Your task to perform on an android device: Search for beats solo 3 on target, select the first entry, add it to the cart, then select checkout. Image 0: 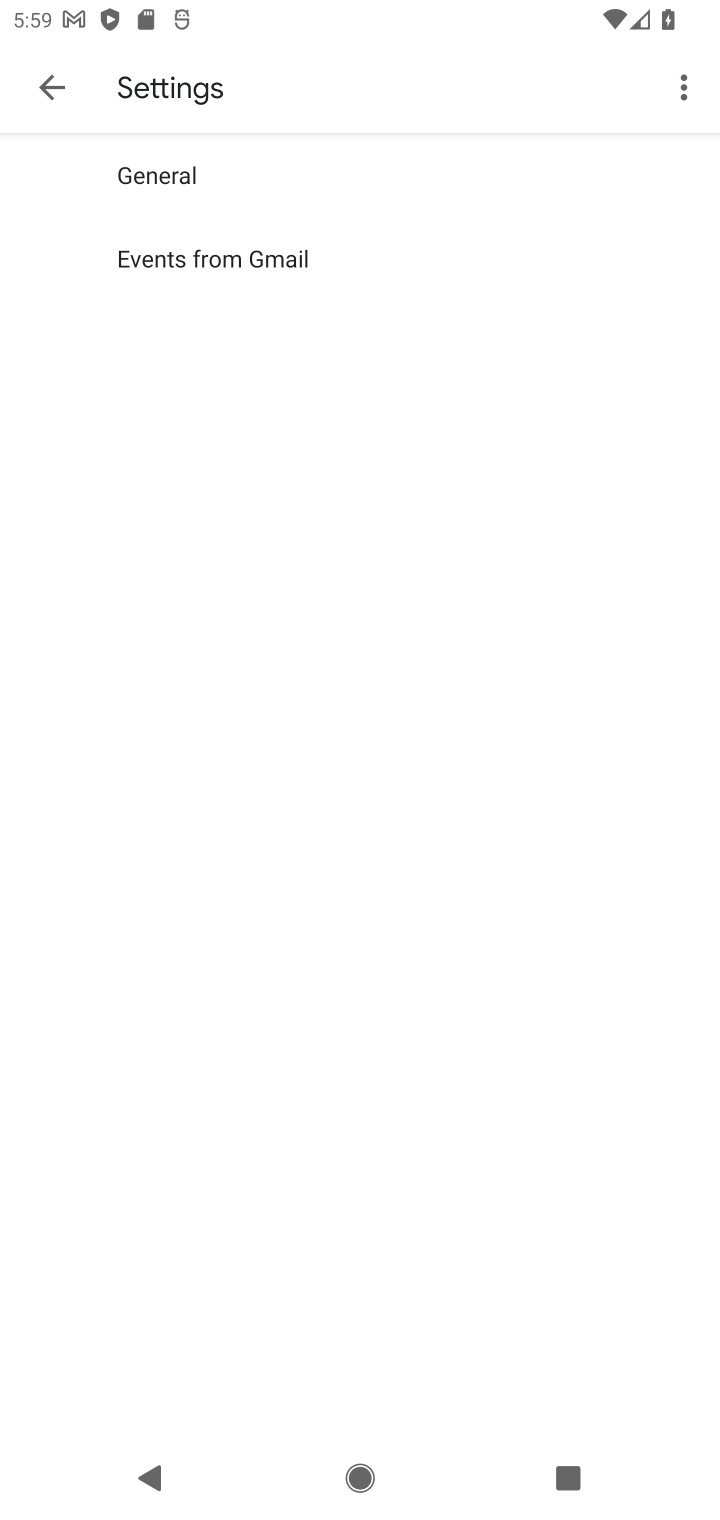
Step 0: press home button
Your task to perform on an android device: Search for beats solo 3 on target, select the first entry, add it to the cart, then select checkout. Image 1: 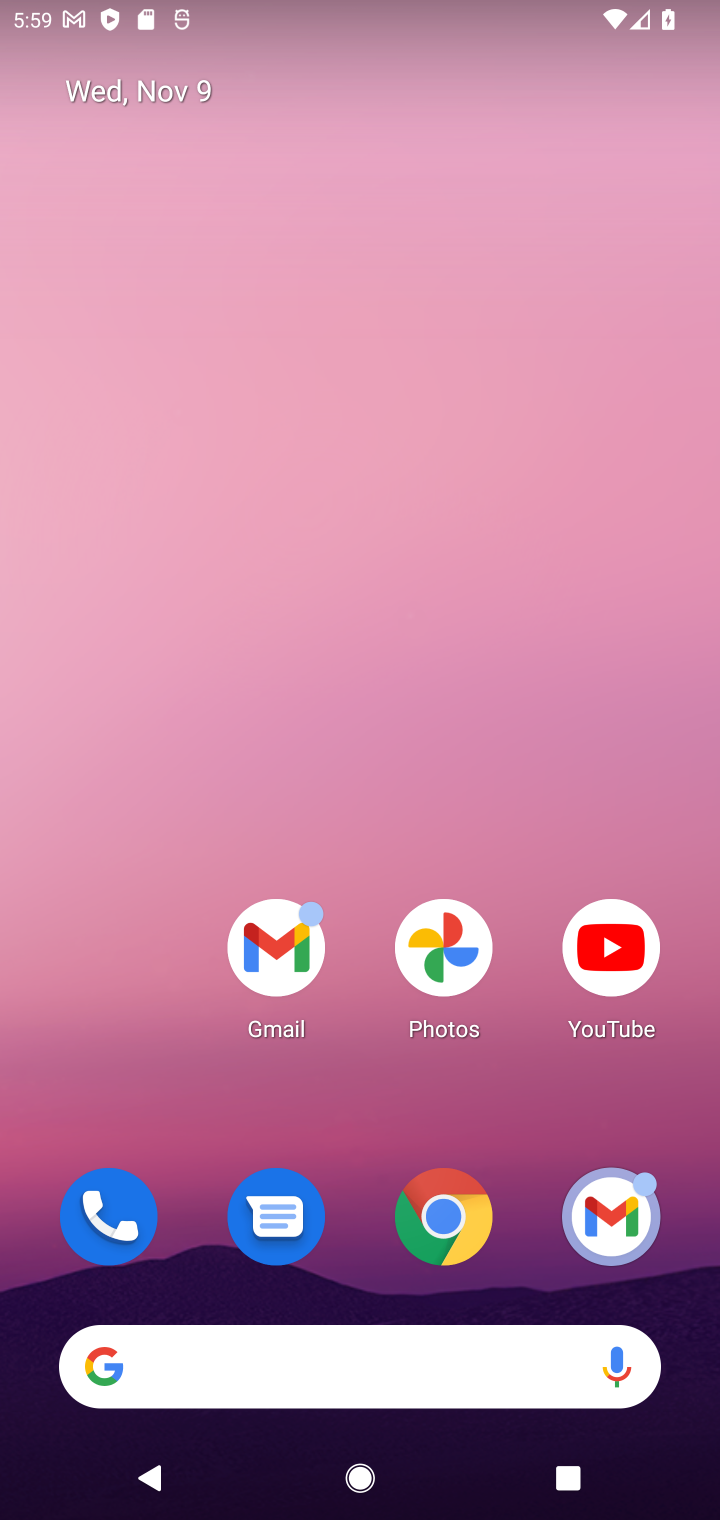
Step 1: drag from (362, 1171) to (371, 232)
Your task to perform on an android device: Search for beats solo 3 on target, select the first entry, add it to the cart, then select checkout. Image 2: 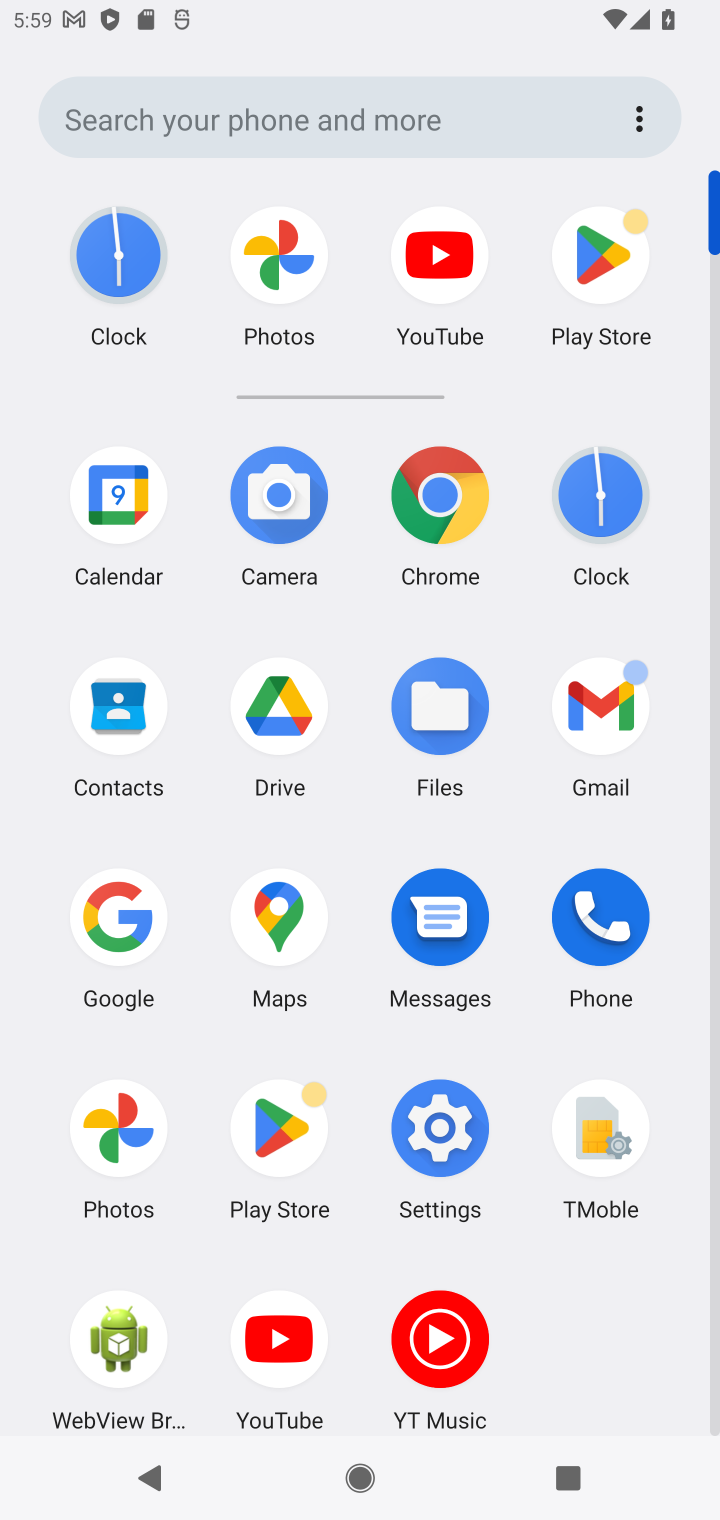
Step 2: click (286, 1342)
Your task to perform on an android device: Search for beats solo 3 on target, select the first entry, add it to the cart, then select checkout. Image 3: 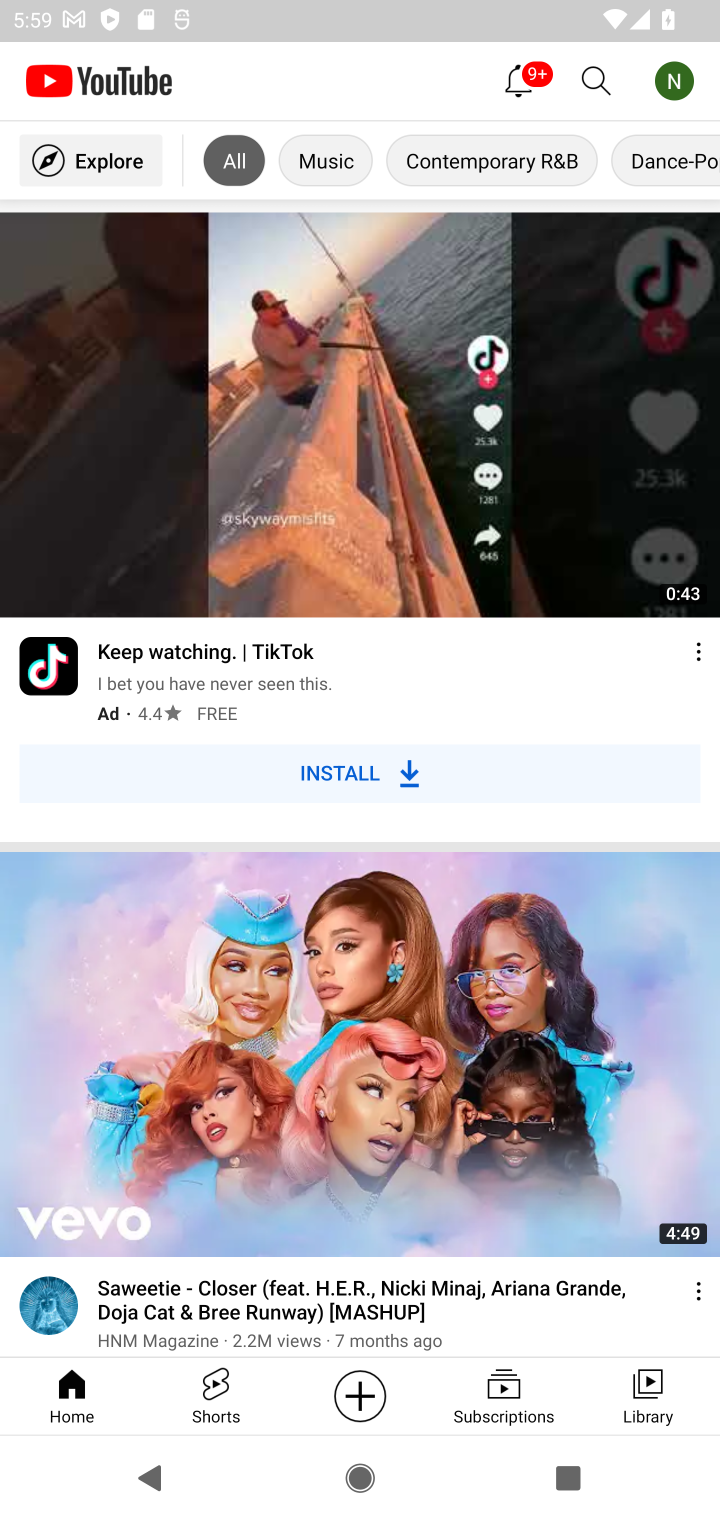
Step 3: press home button
Your task to perform on an android device: Search for beats solo 3 on target, select the first entry, add it to the cart, then select checkout. Image 4: 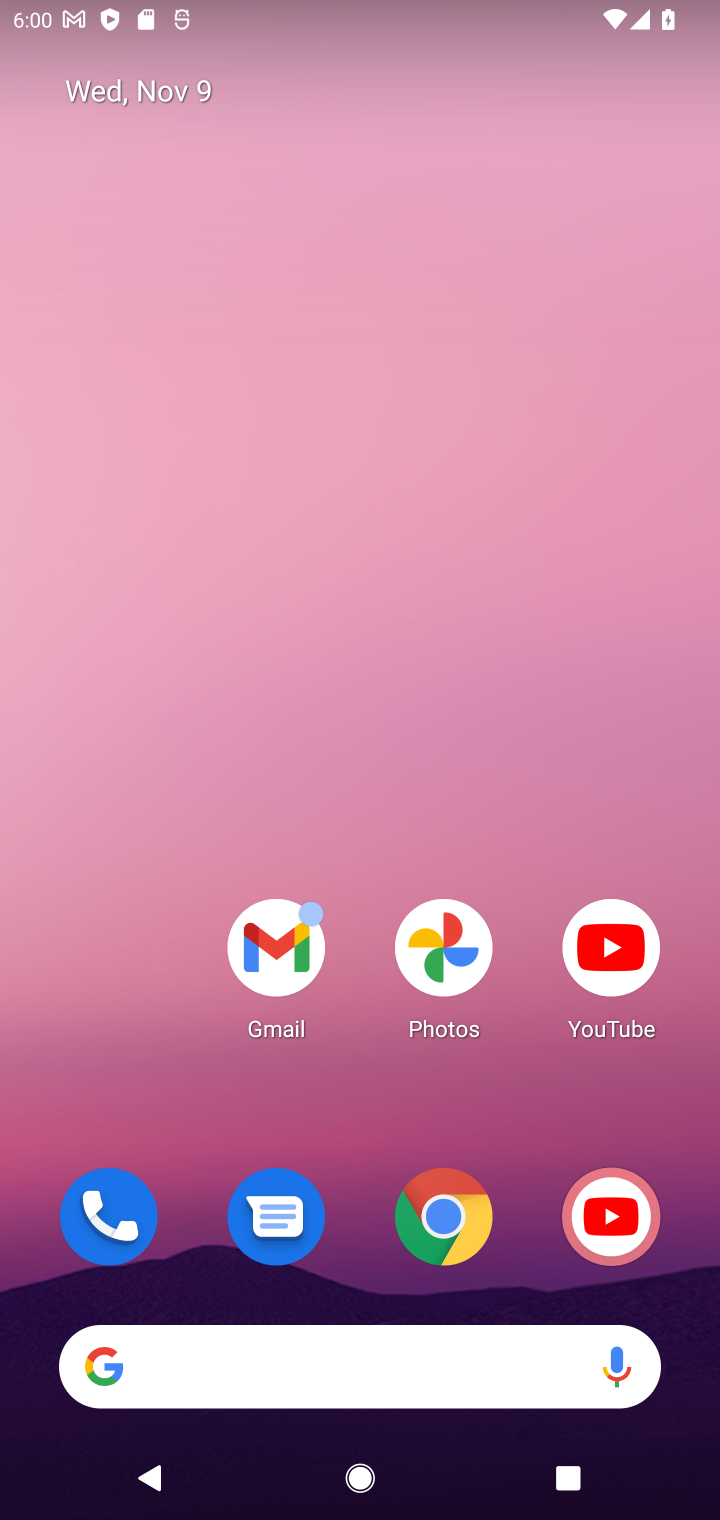
Step 4: drag from (379, 951) to (343, 345)
Your task to perform on an android device: Search for beats solo 3 on target, select the first entry, add it to the cart, then select checkout. Image 5: 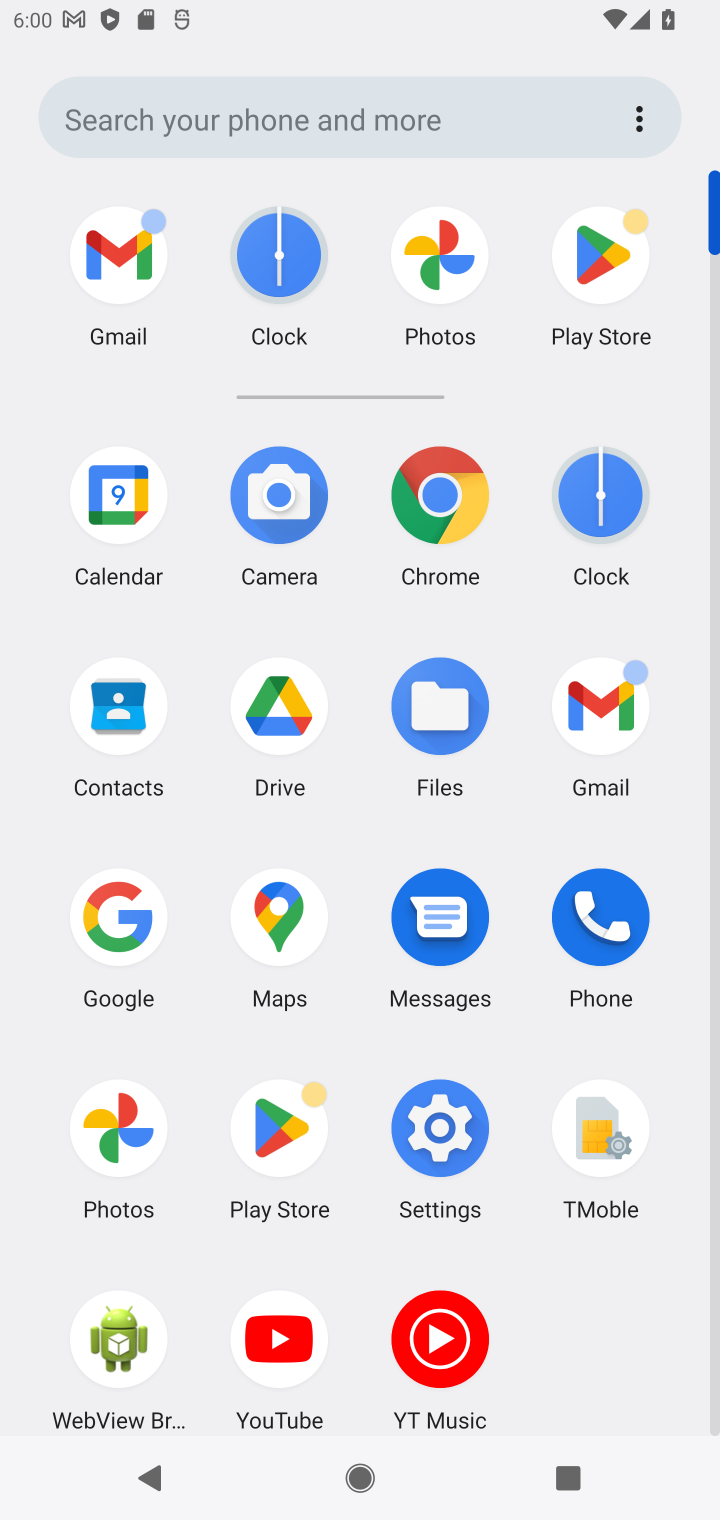
Step 5: click (444, 501)
Your task to perform on an android device: Search for beats solo 3 on target, select the first entry, add it to the cart, then select checkout. Image 6: 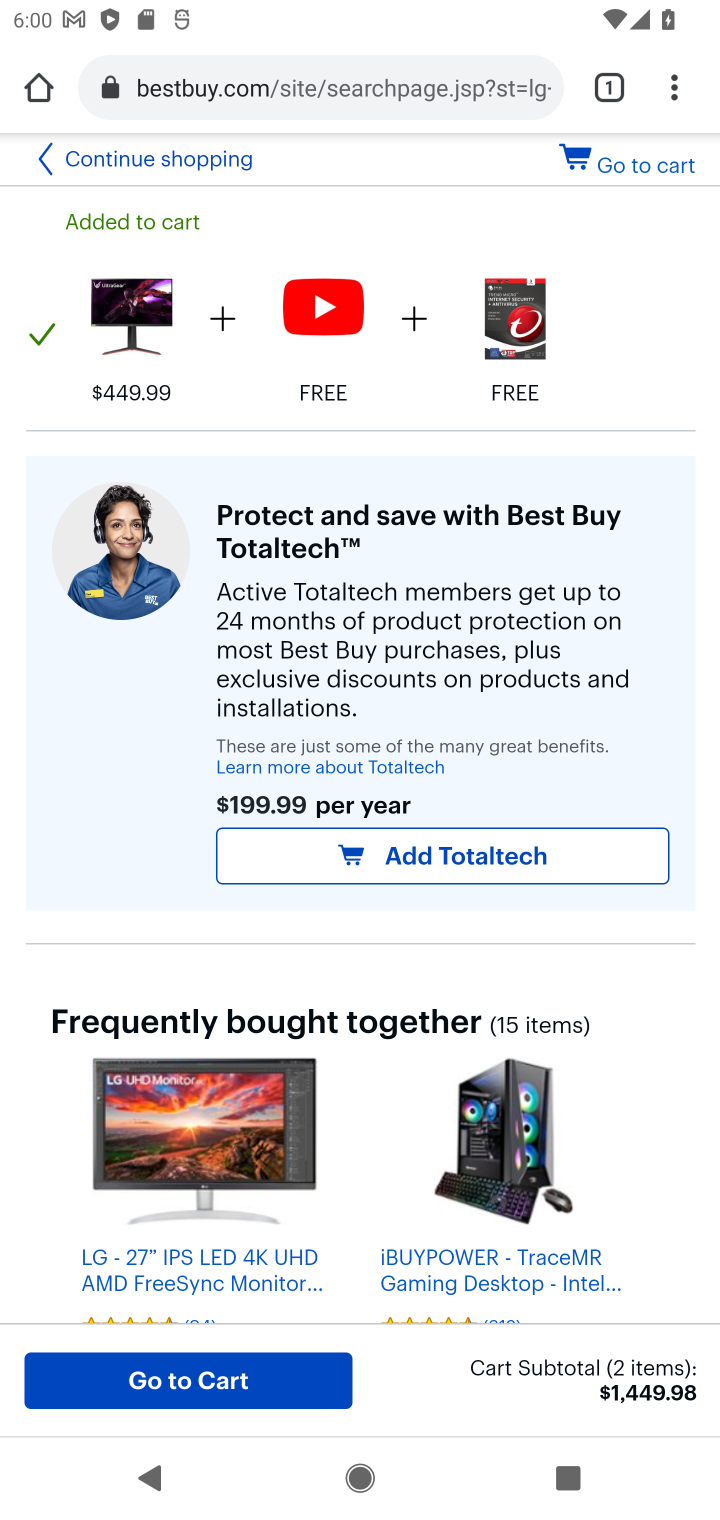
Step 6: click (410, 77)
Your task to perform on an android device: Search for beats solo 3 on target, select the first entry, add it to the cart, then select checkout. Image 7: 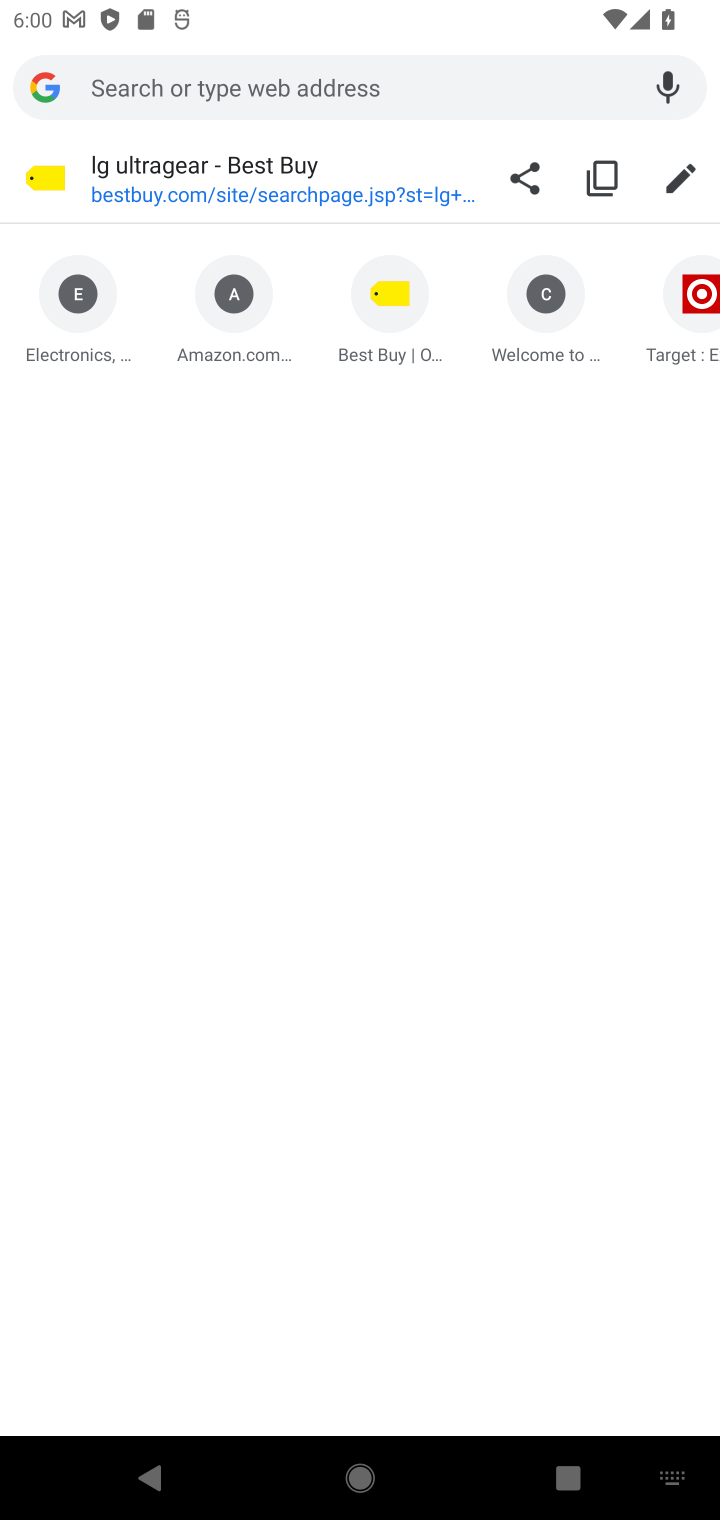
Step 7: type "target.com"
Your task to perform on an android device: Search for beats solo 3 on target, select the first entry, add it to the cart, then select checkout. Image 8: 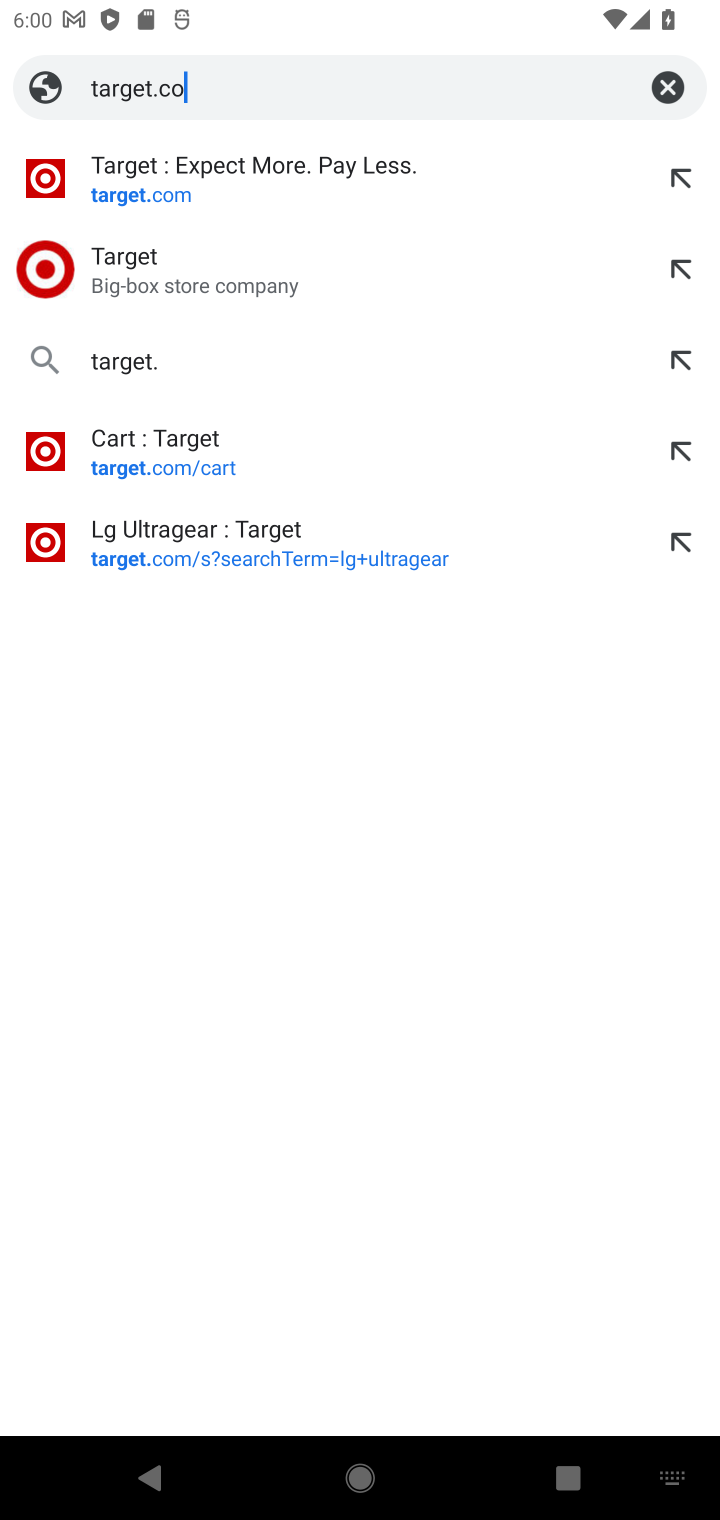
Step 8: press enter
Your task to perform on an android device: Search for beats solo 3 on target, select the first entry, add it to the cart, then select checkout. Image 9: 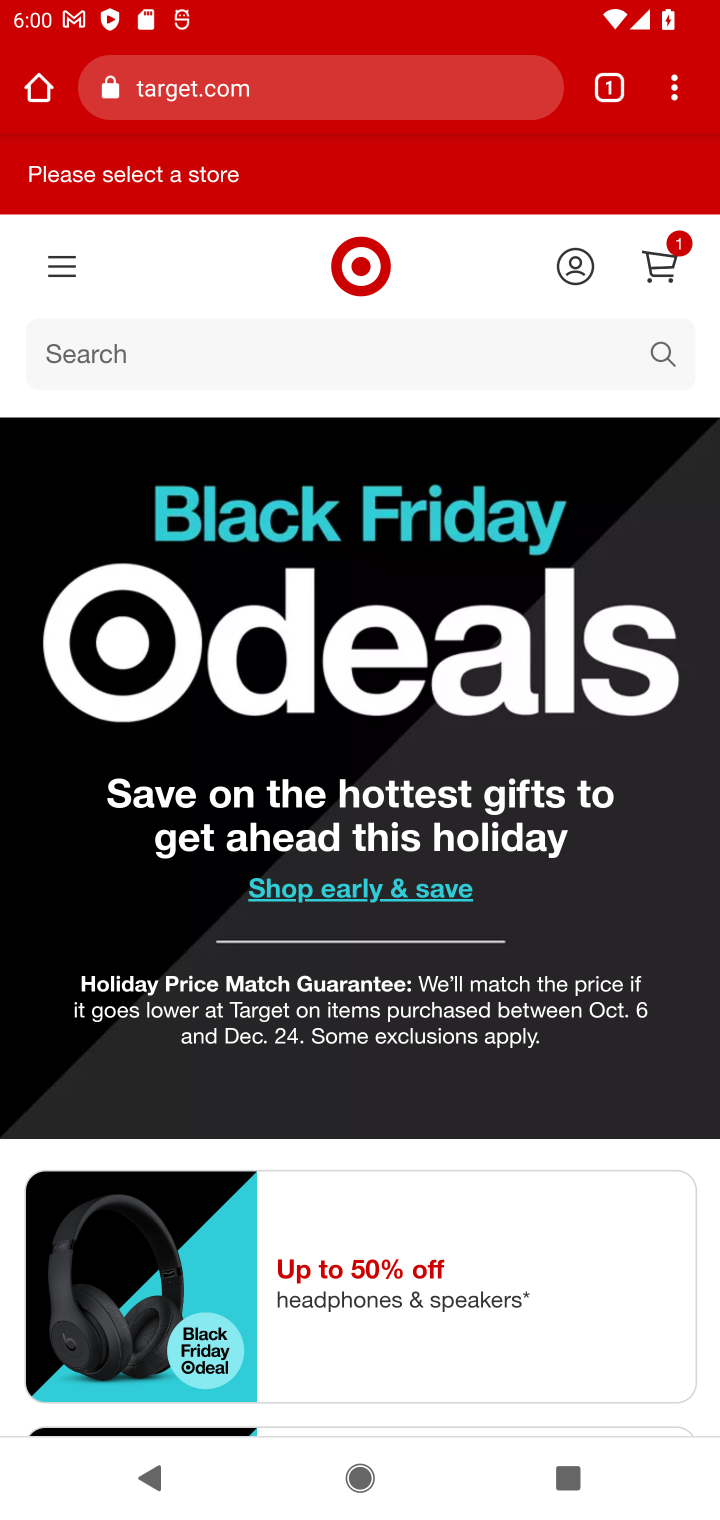
Step 9: click (362, 352)
Your task to perform on an android device: Search for beats solo 3 on target, select the first entry, add it to the cart, then select checkout. Image 10: 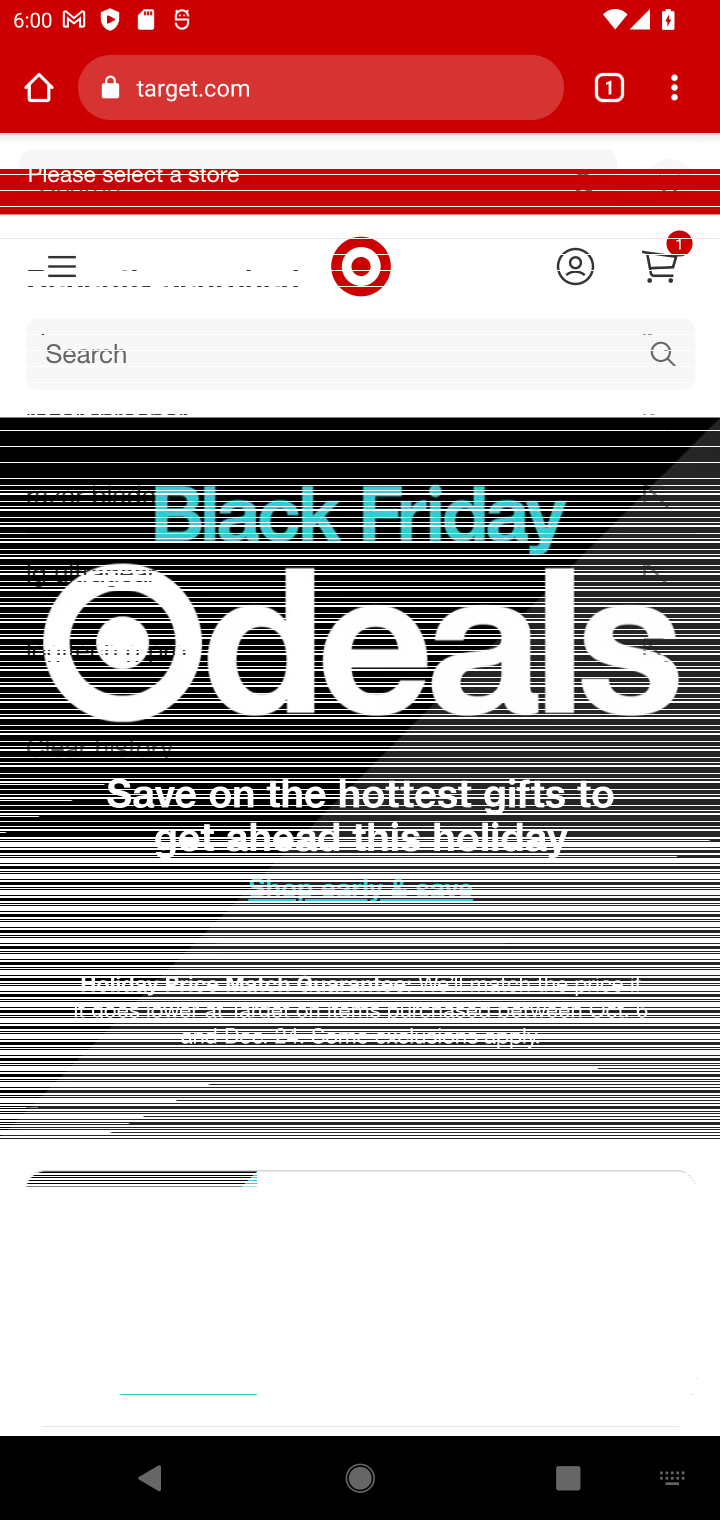
Step 10: type "beats solo 3"
Your task to perform on an android device: Search for beats solo 3 on target, select the first entry, add it to the cart, then select checkout. Image 11: 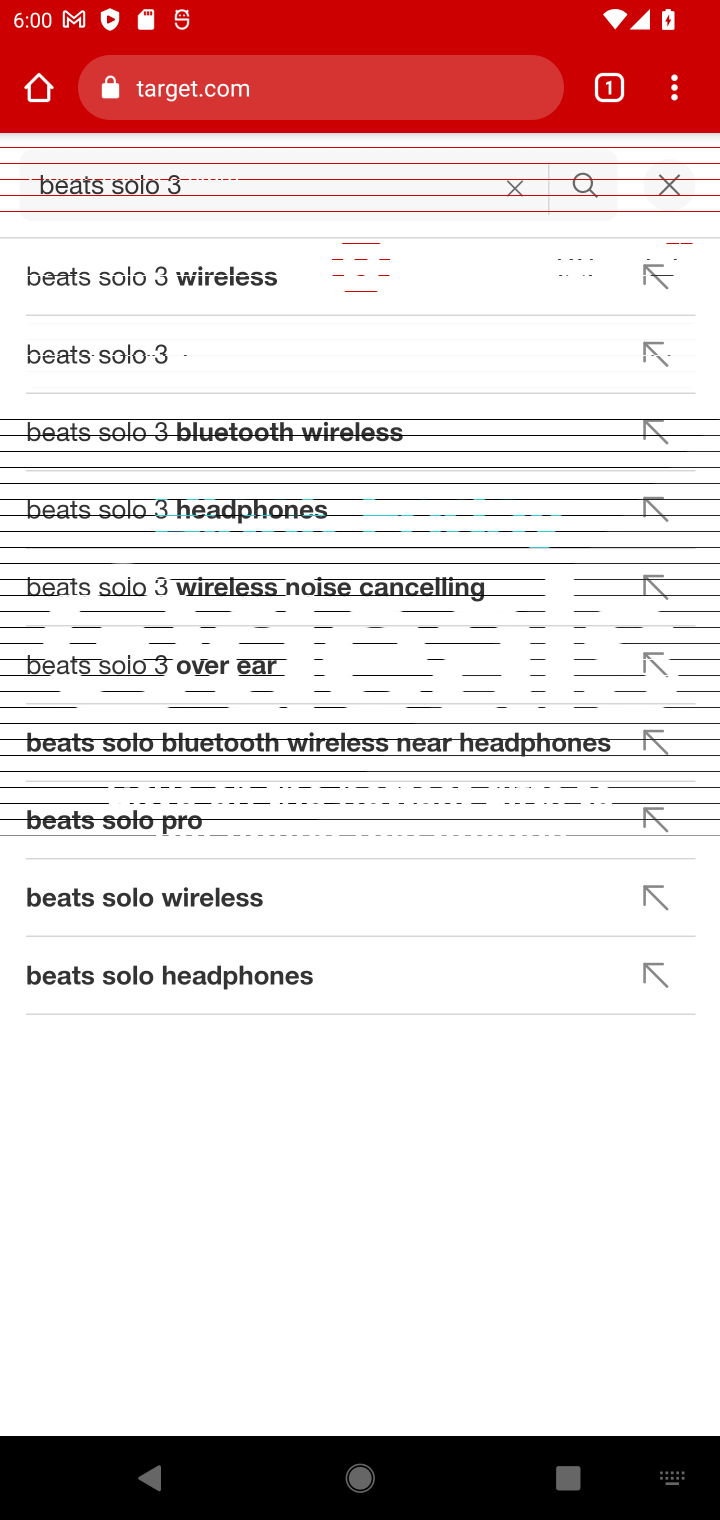
Step 11: press enter
Your task to perform on an android device: Search for beats solo 3 on target, select the first entry, add it to the cart, then select checkout. Image 12: 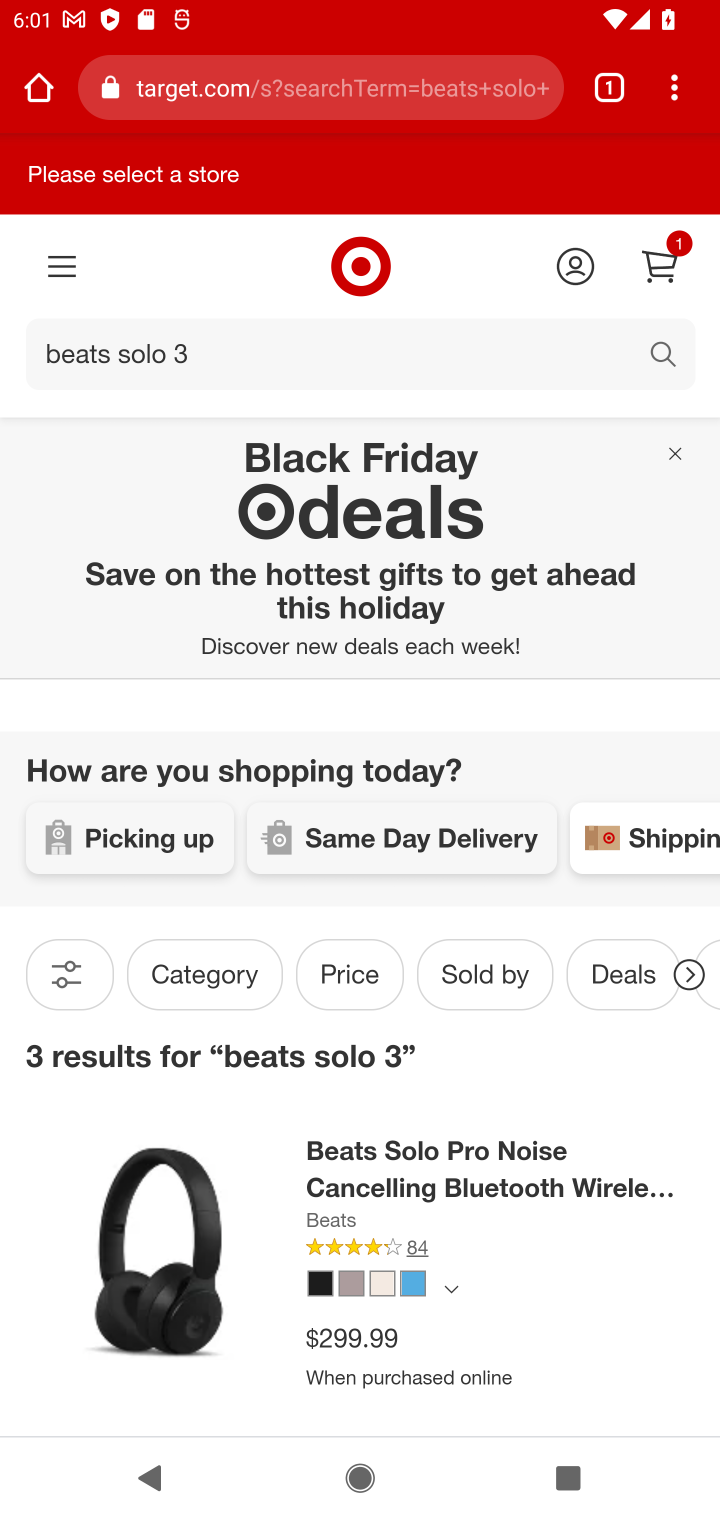
Step 12: drag from (519, 1070) to (454, 255)
Your task to perform on an android device: Search for beats solo 3 on target, select the first entry, add it to the cart, then select checkout. Image 13: 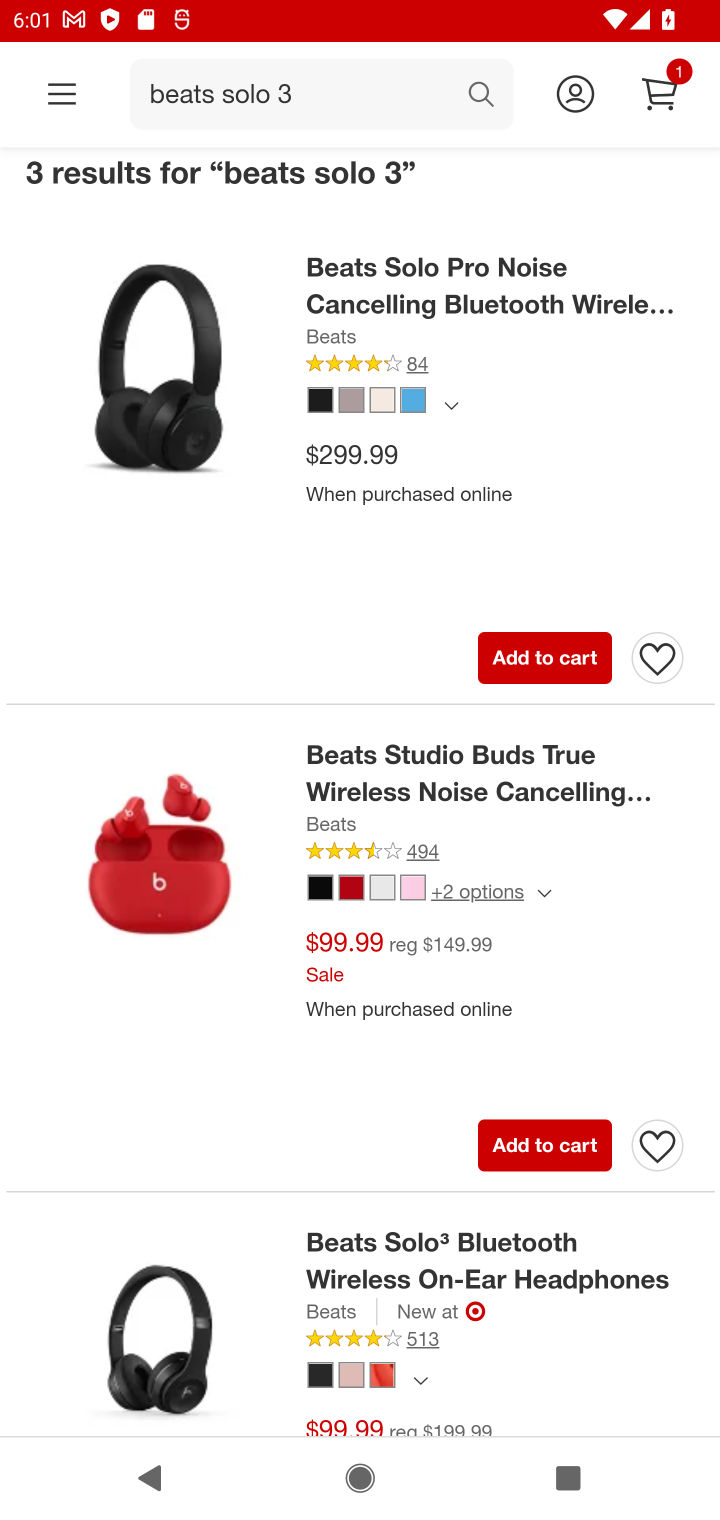
Step 13: drag from (365, 956) to (259, 1516)
Your task to perform on an android device: Search for beats solo 3 on target, select the first entry, add it to the cart, then select checkout. Image 14: 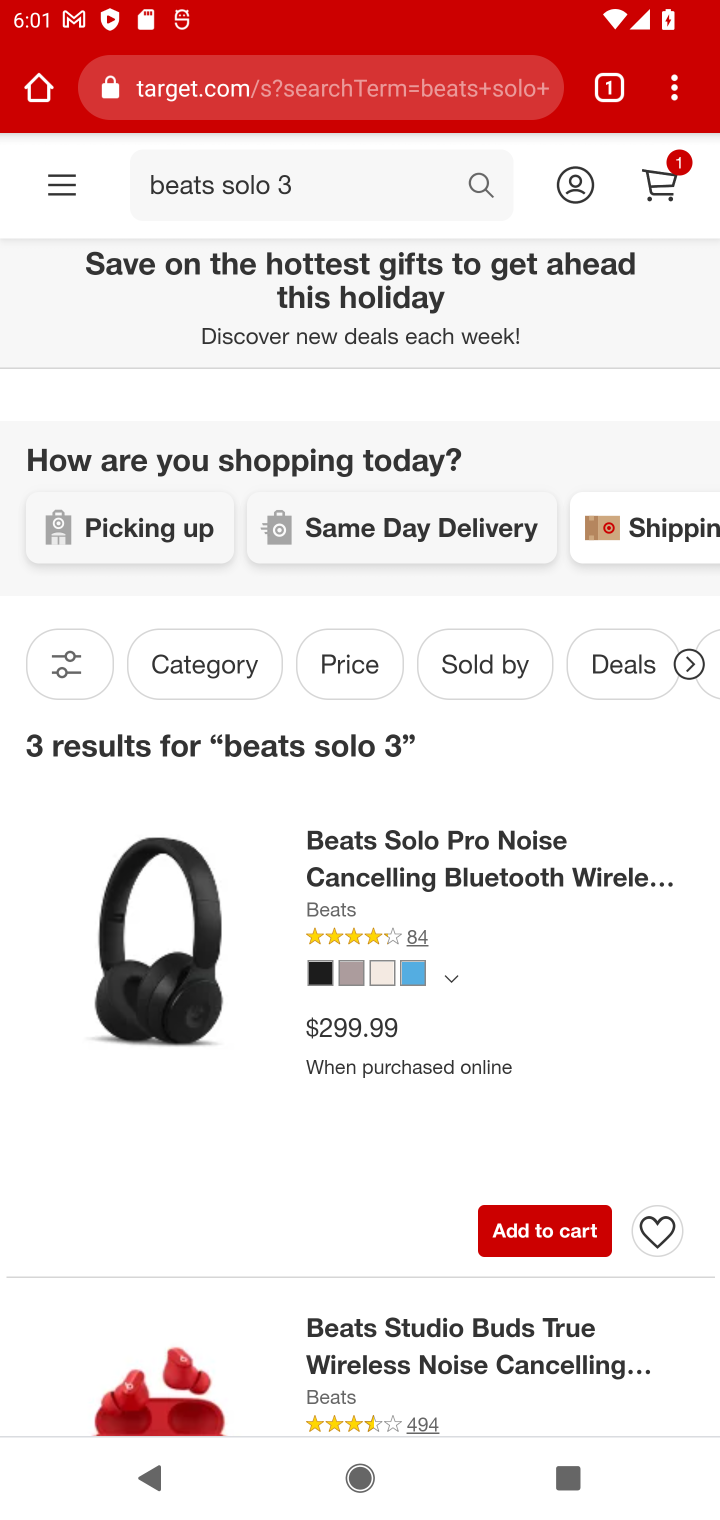
Step 14: drag from (380, 1220) to (409, 517)
Your task to perform on an android device: Search for beats solo 3 on target, select the first entry, add it to the cart, then select checkout. Image 15: 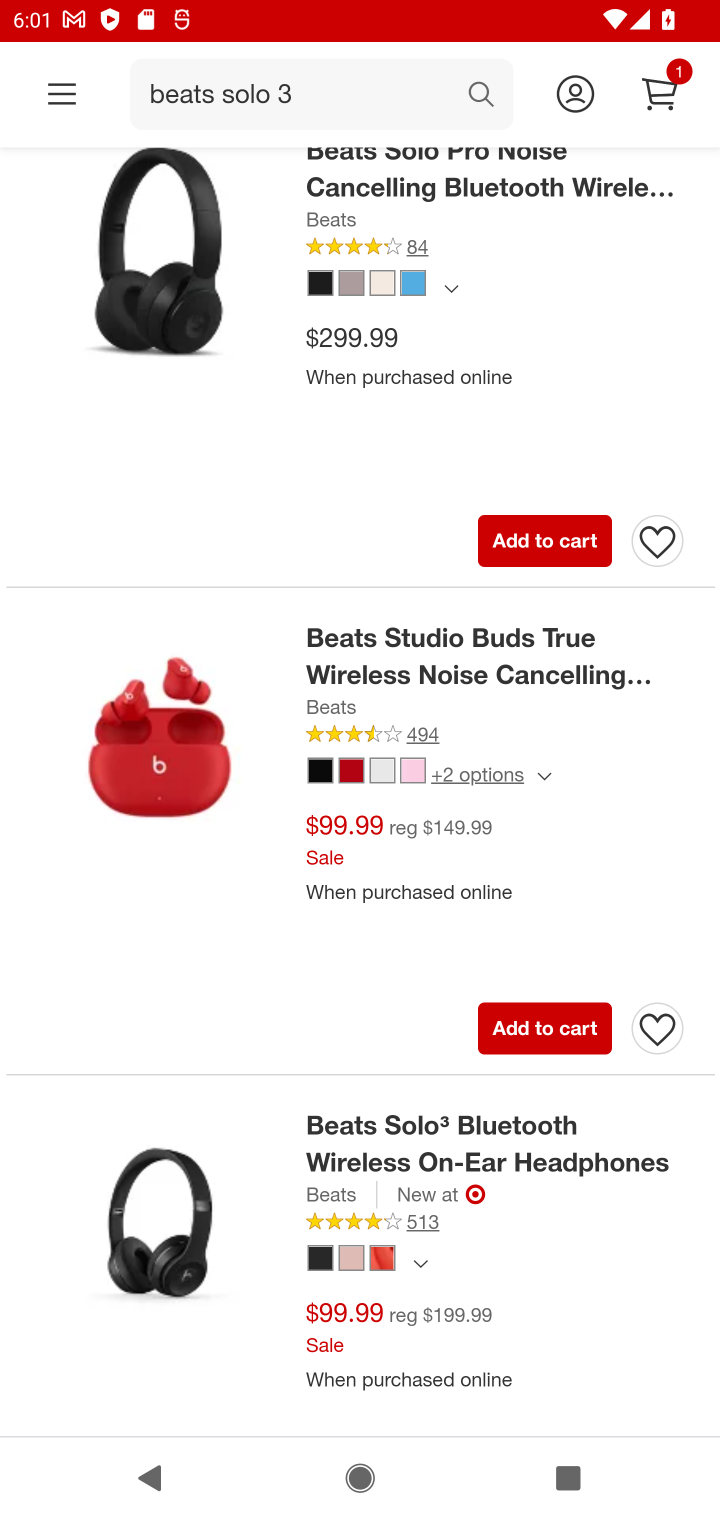
Step 15: drag from (340, 1223) to (347, 654)
Your task to perform on an android device: Search for beats solo 3 on target, select the first entry, add it to the cart, then select checkout. Image 16: 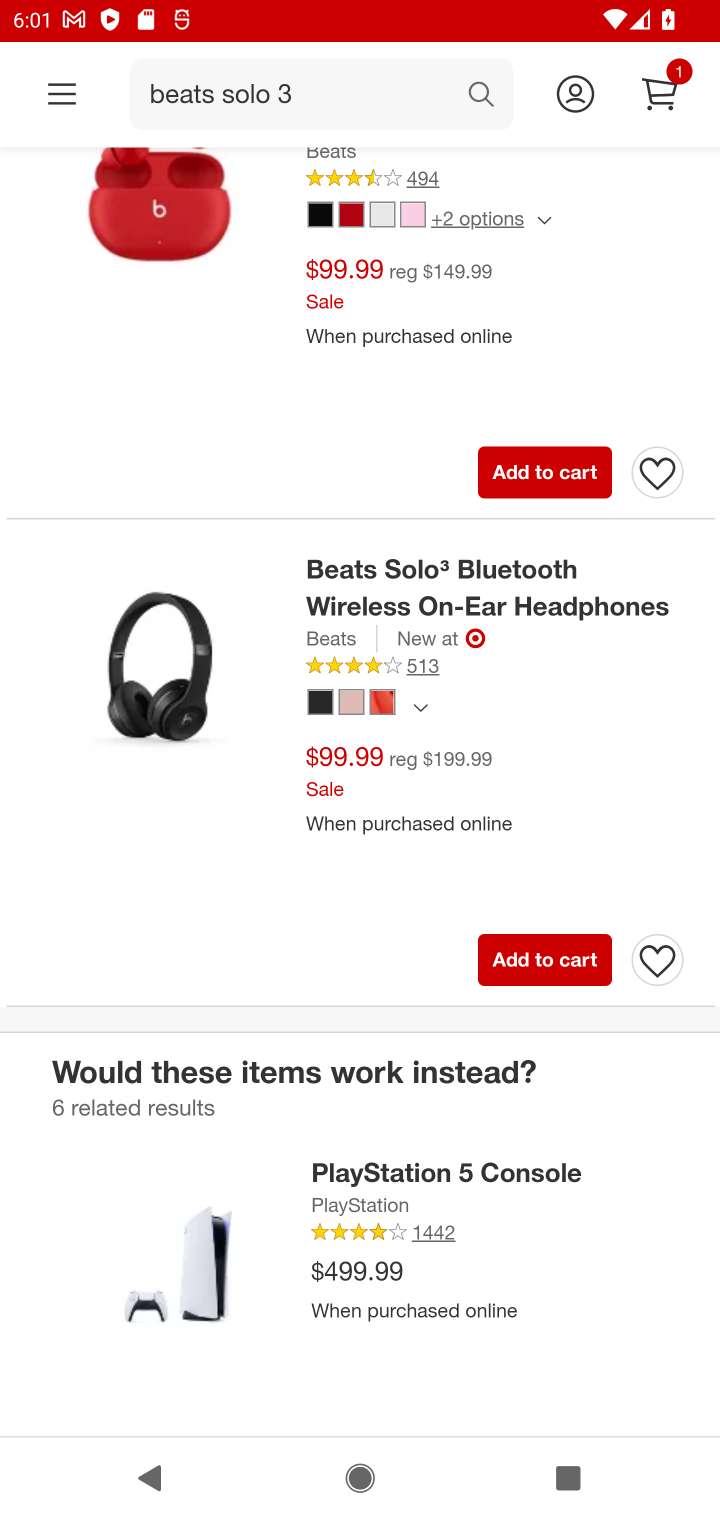
Step 16: drag from (276, 445) to (295, 1046)
Your task to perform on an android device: Search for beats solo 3 on target, select the first entry, add it to the cart, then select checkout. Image 17: 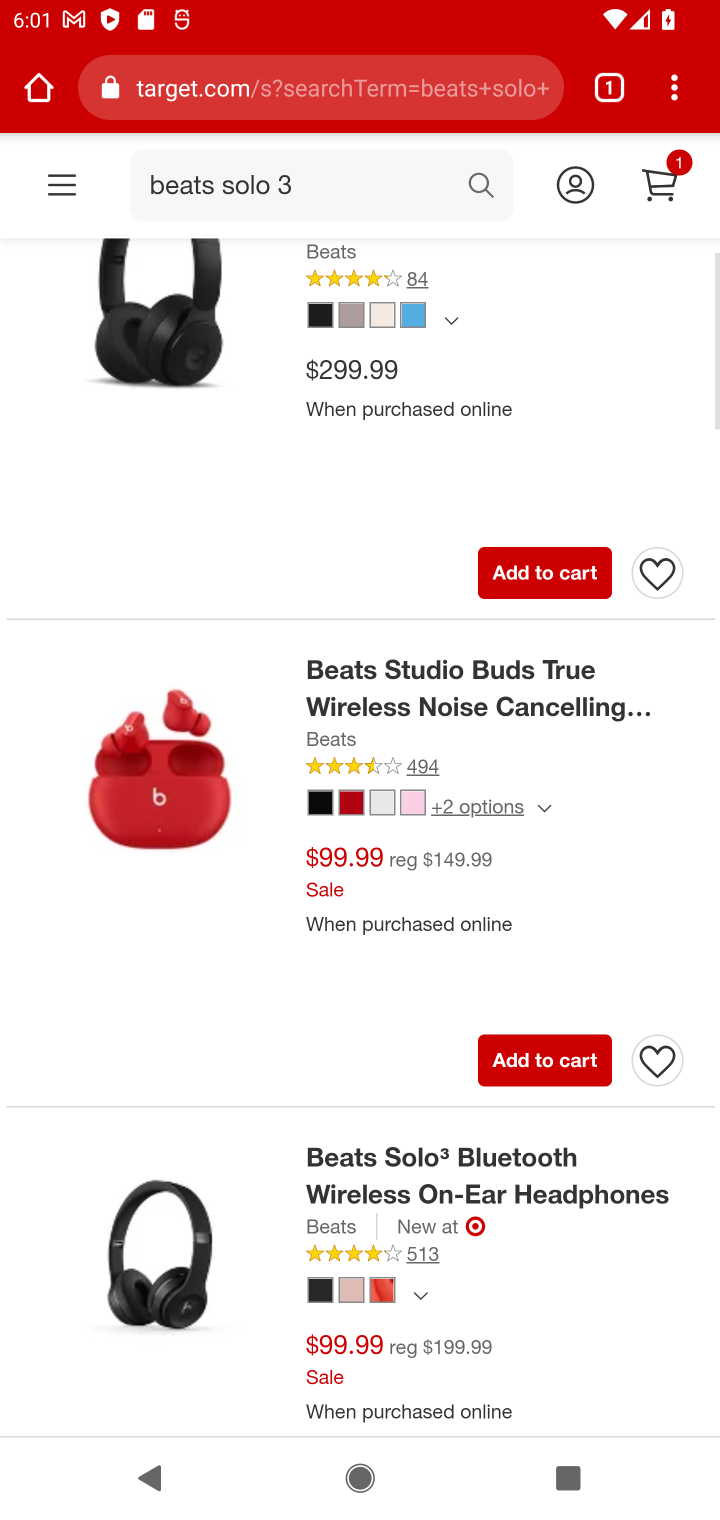
Step 17: drag from (228, 591) to (285, 246)
Your task to perform on an android device: Search for beats solo 3 on target, select the first entry, add it to the cart, then select checkout. Image 18: 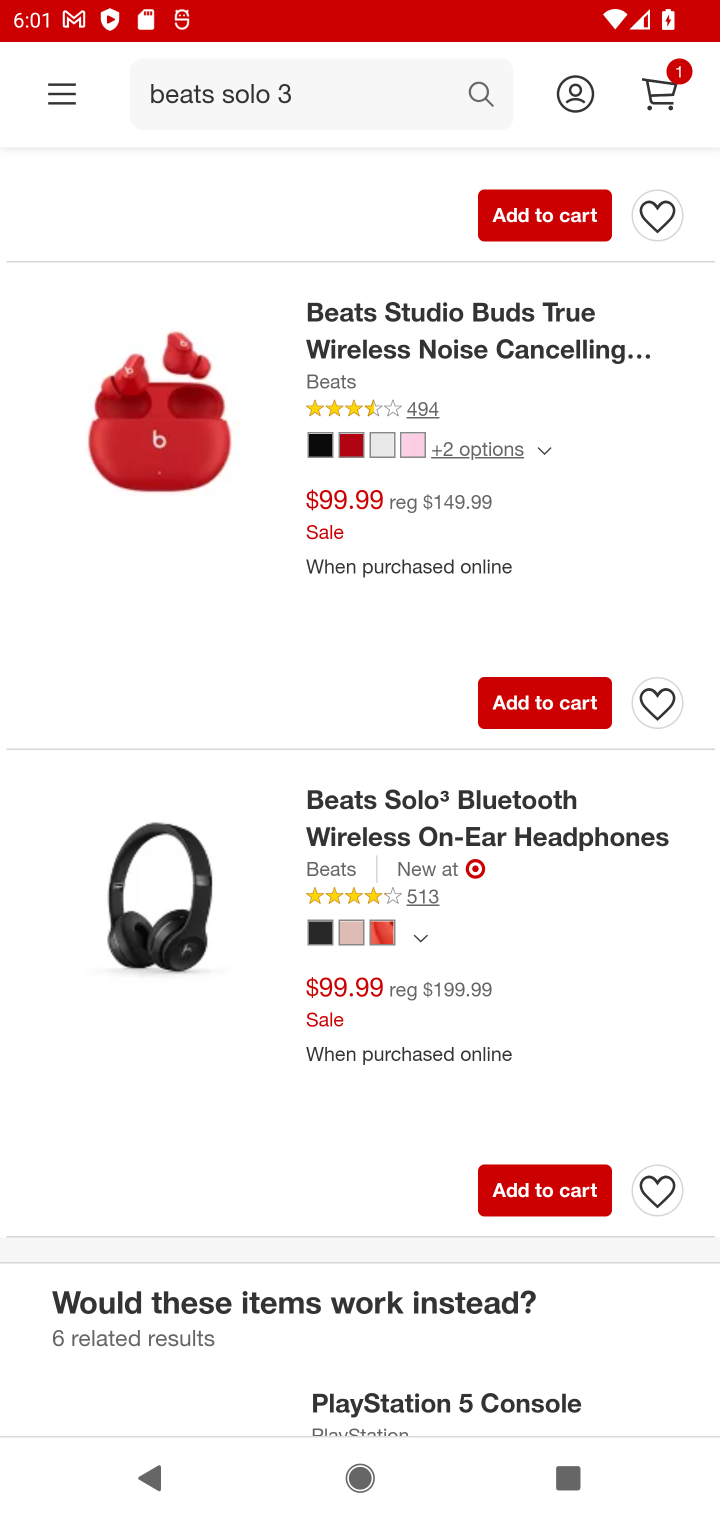
Step 18: click (568, 1194)
Your task to perform on an android device: Search for beats solo 3 on target, select the first entry, add it to the cart, then select checkout. Image 19: 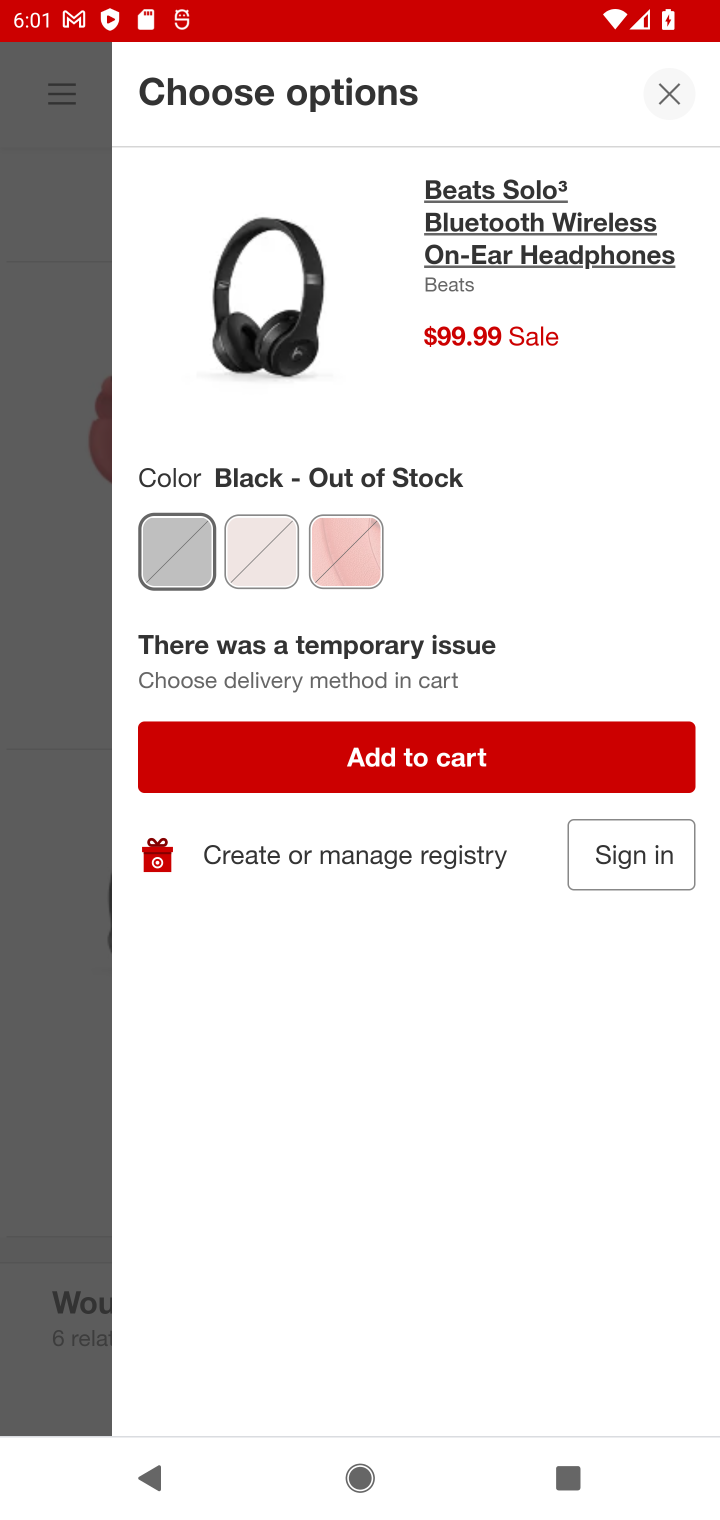
Step 19: click (527, 776)
Your task to perform on an android device: Search for beats solo 3 on target, select the first entry, add it to the cart, then select checkout. Image 20: 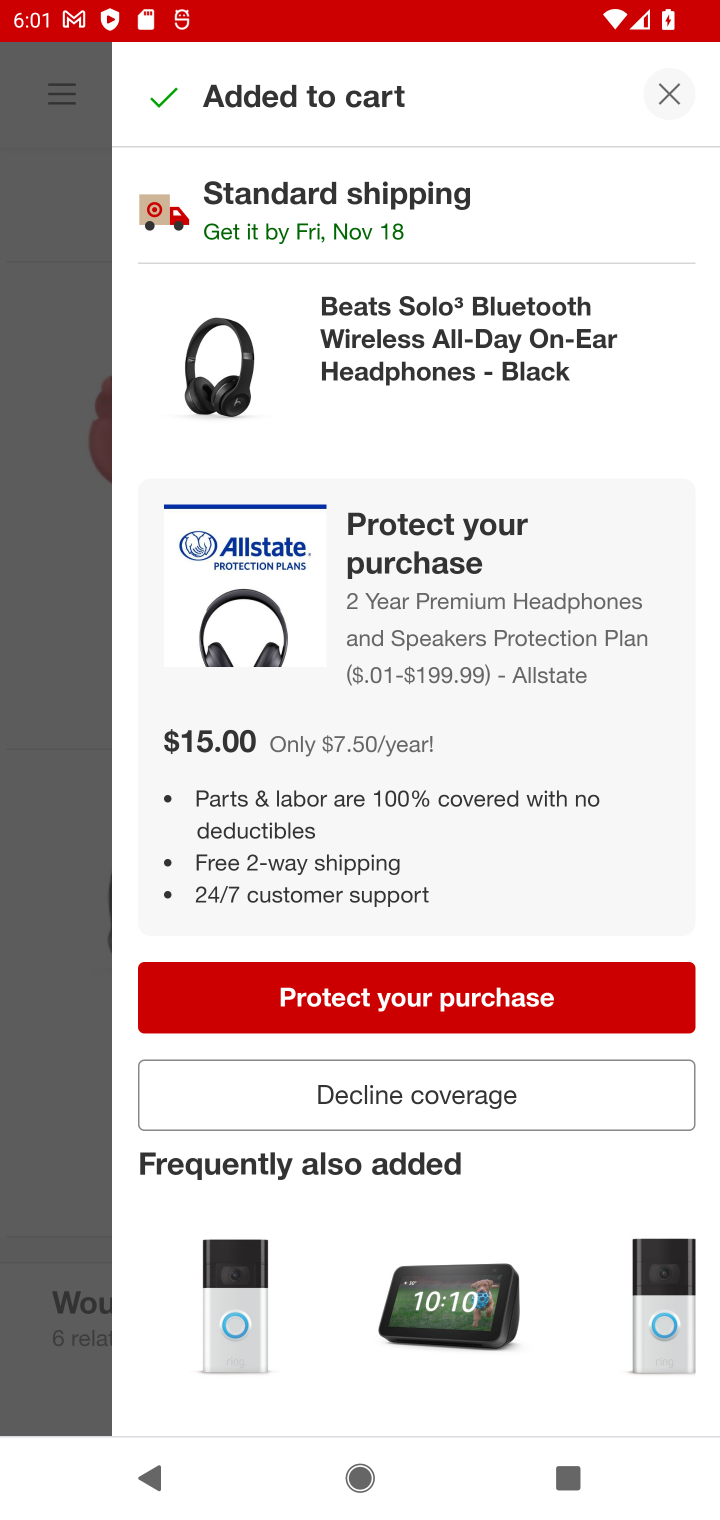
Step 20: click (663, 73)
Your task to perform on an android device: Search for beats solo 3 on target, select the first entry, add it to the cart, then select checkout. Image 21: 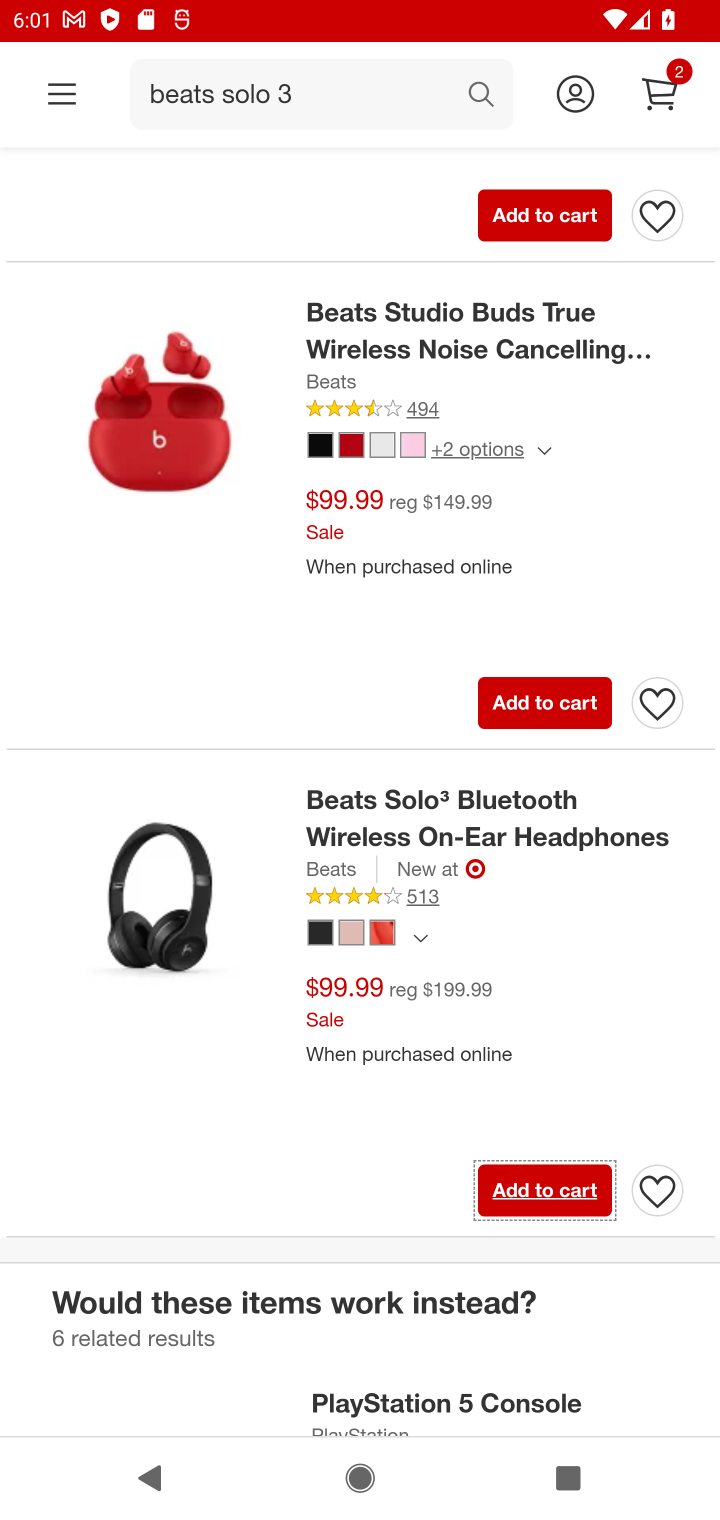
Step 21: click (672, 99)
Your task to perform on an android device: Search for beats solo 3 on target, select the first entry, add it to the cart, then select checkout. Image 22: 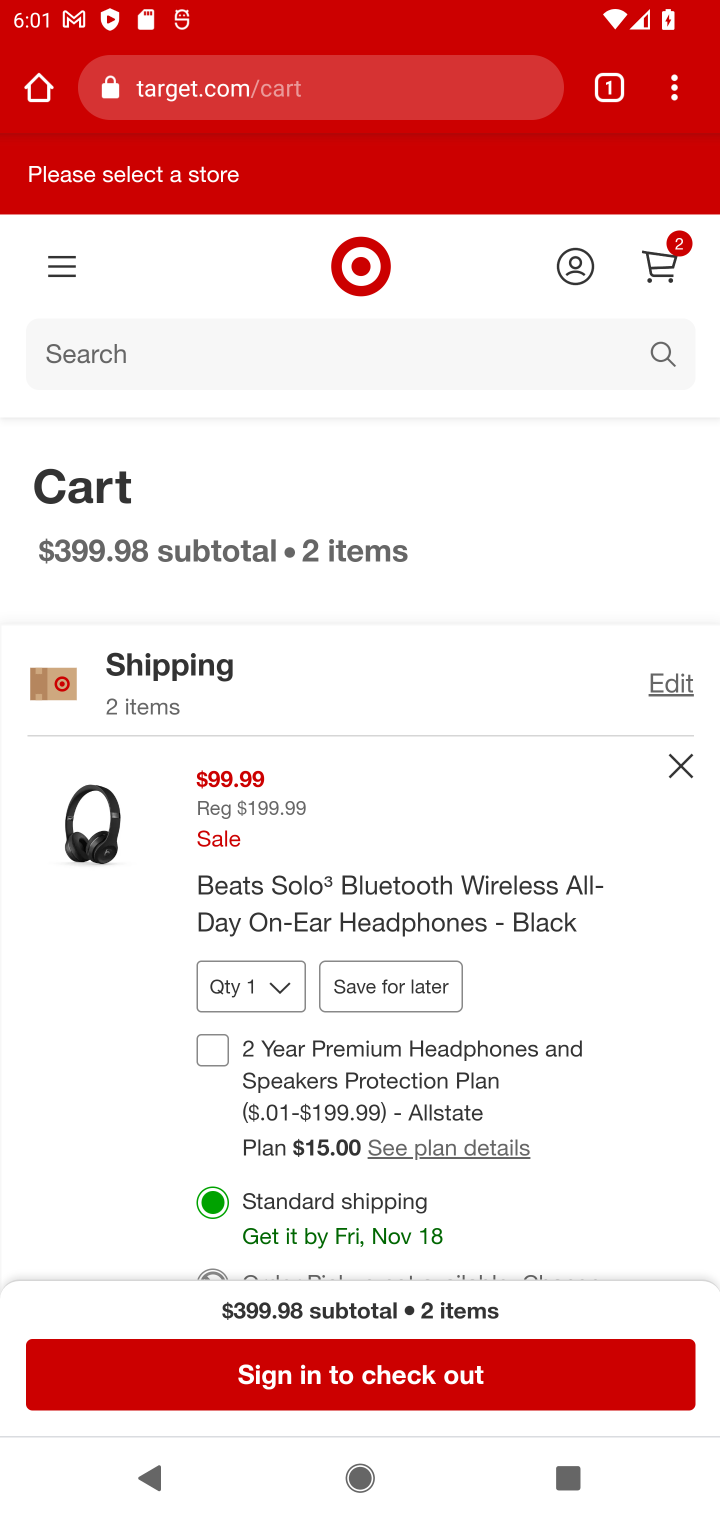
Step 22: click (458, 1394)
Your task to perform on an android device: Search for beats solo 3 on target, select the first entry, add it to the cart, then select checkout. Image 23: 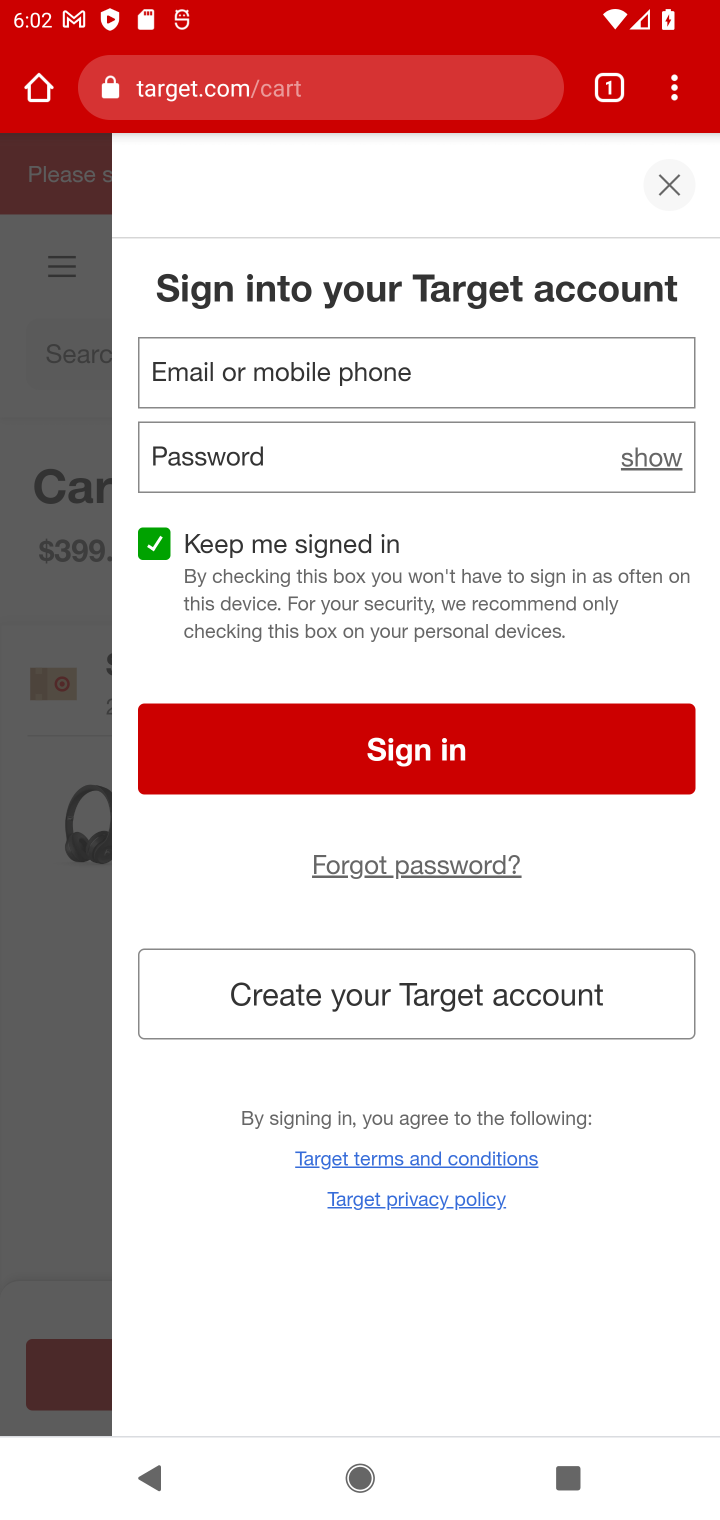
Step 23: task complete